Your task to perform on an android device: see tabs open on other devices in the chrome app Image 0: 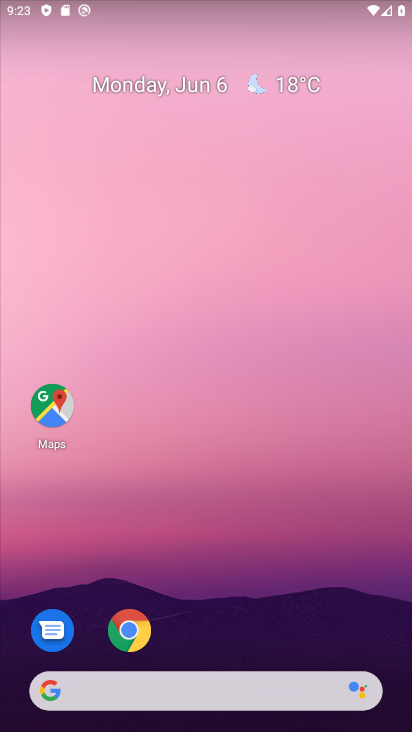
Step 0: click (134, 645)
Your task to perform on an android device: see tabs open on other devices in the chrome app Image 1: 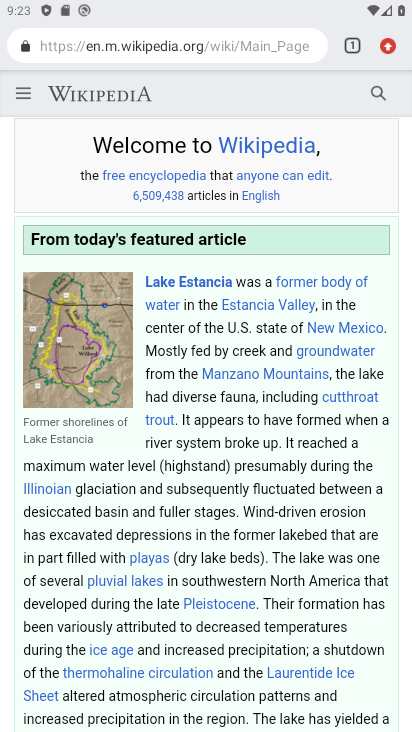
Step 1: click (345, 48)
Your task to perform on an android device: see tabs open on other devices in the chrome app Image 2: 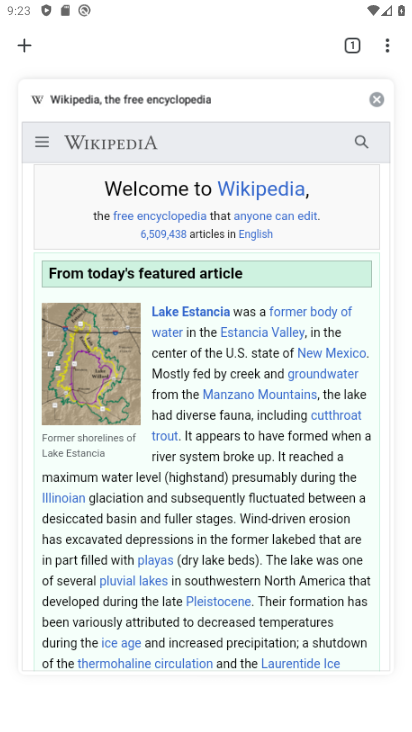
Step 2: click (331, 106)
Your task to perform on an android device: see tabs open on other devices in the chrome app Image 3: 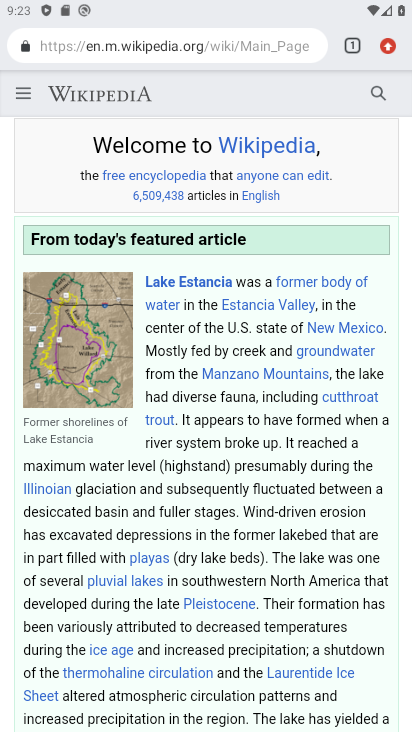
Step 3: click (389, 46)
Your task to perform on an android device: see tabs open on other devices in the chrome app Image 4: 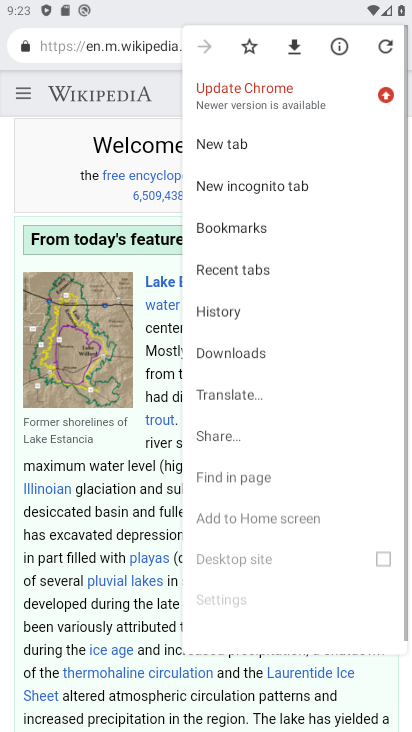
Step 4: click (387, 49)
Your task to perform on an android device: see tabs open on other devices in the chrome app Image 5: 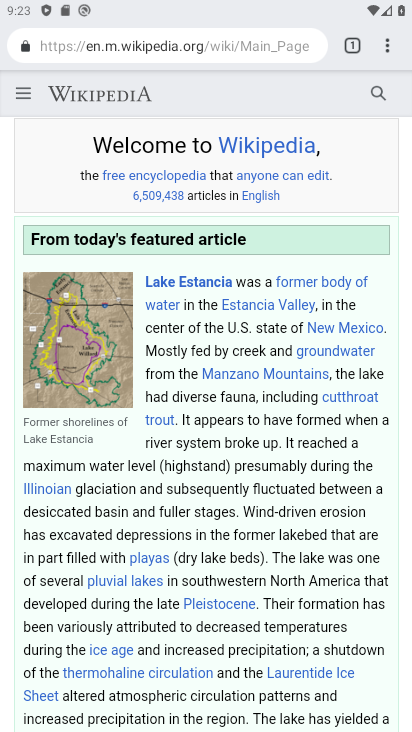
Step 5: click (393, 44)
Your task to perform on an android device: see tabs open on other devices in the chrome app Image 6: 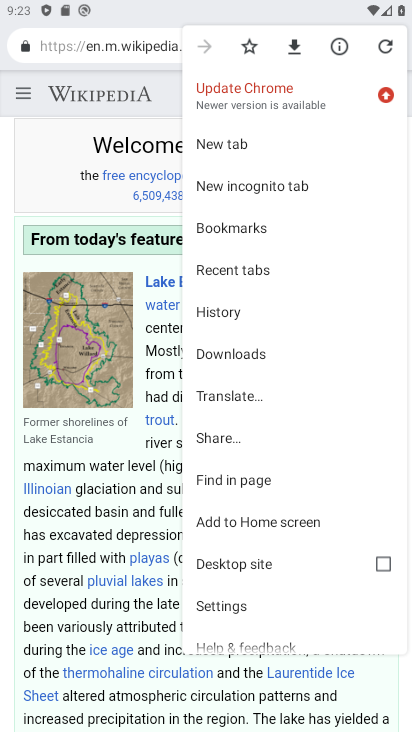
Step 6: click (253, 277)
Your task to perform on an android device: see tabs open on other devices in the chrome app Image 7: 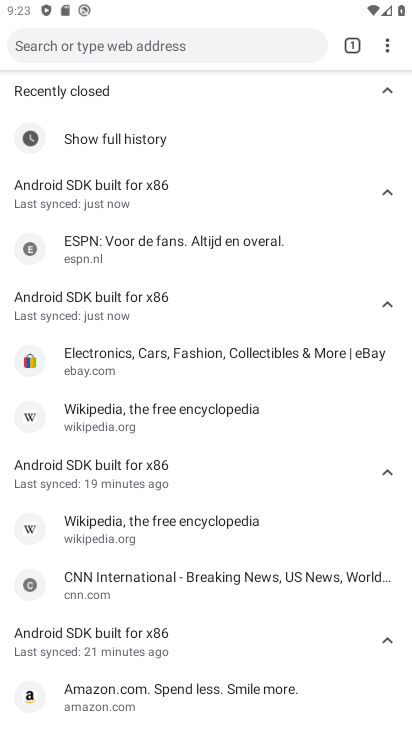
Step 7: task complete